Your task to perform on an android device: turn off data saver in the chrome app Image 0: 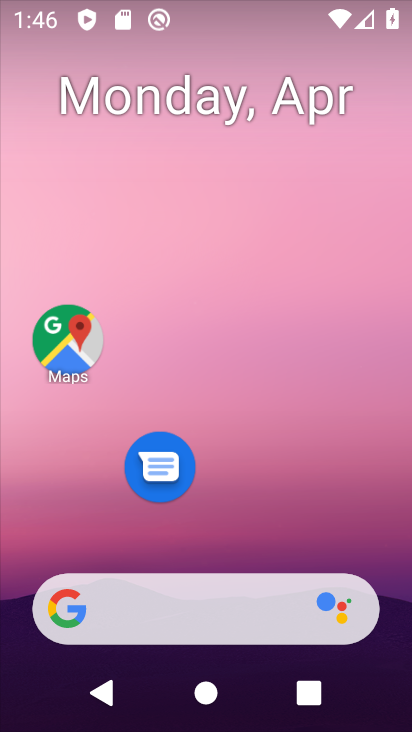
Step 0: drag from (261, 519) to (187, 86)
Your task to perform on an android device: turn off data saver in the chrome app Image 1: 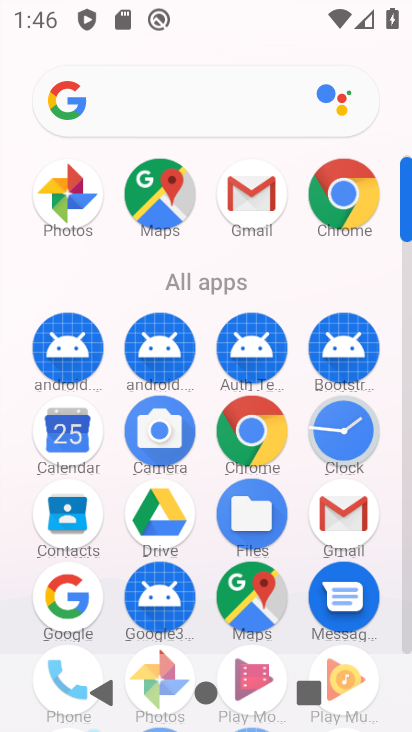
Step 1: click (331, 204)
Your task to perform on an android device: turn off data saver in the chrome app Image 2: 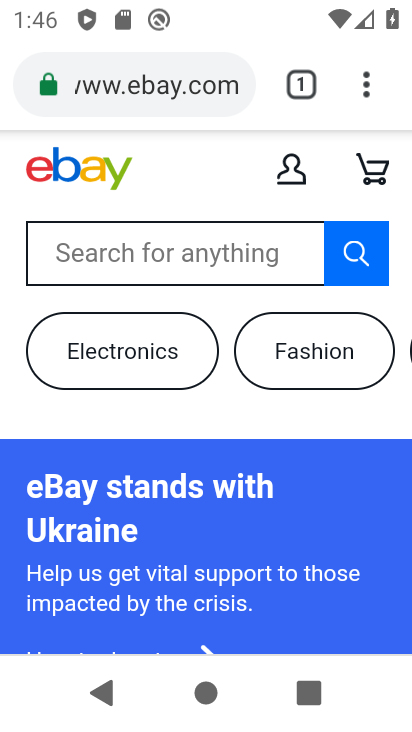
Step 2: click (368, 84)
Your task to perform on an android device: turn off data saver in the chrome app Image 3: 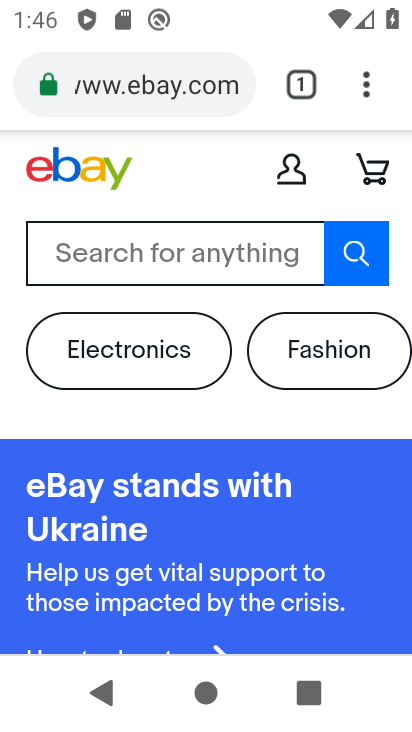
Step 3: click (368, 84)
Your task to perform on an android device: turn off data saver in the chrome app Image 4: 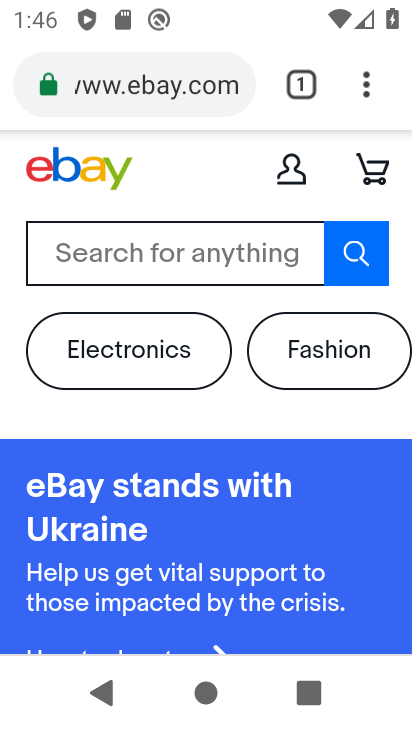
Step 4: click (358, 85)
Your task to perform on an android device: turn off data saver in the chrome app Image 5: 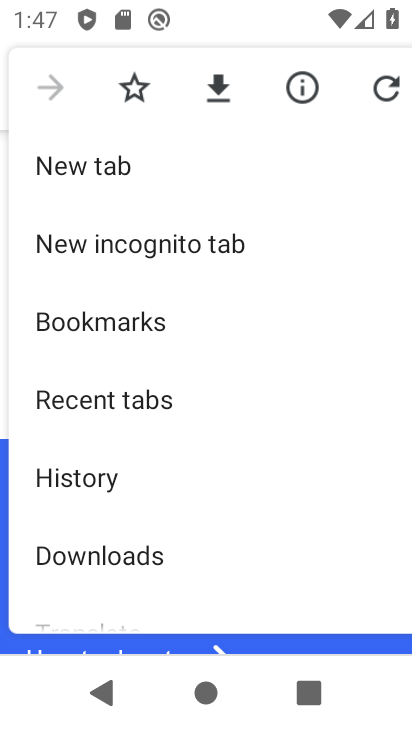
Step 5: drag from (168, 575) to (127, 438)
Your task to perform on an android device: turn off data saver in the chrome app Image 6: 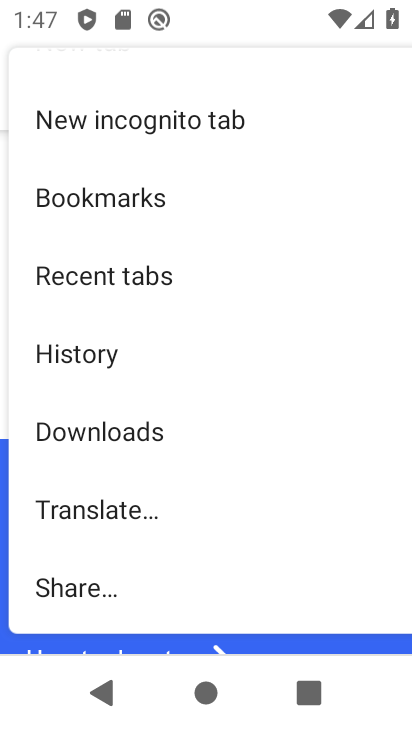
Step 6: drag from (142, 589) to (129, 396)
Your task to perform on an android device: turn off data saver in the chrome app Image 7: 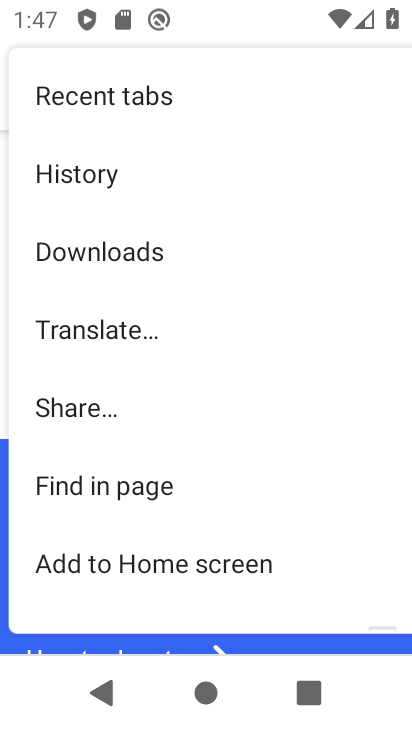
Step 7: drag from (176, 481) to (183, 244)
Your task to perform on an android device: turn off data saver in the chrome app Image 8: 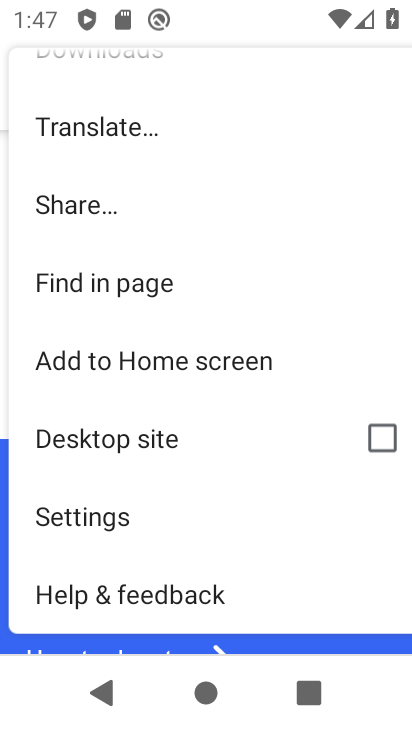
Step 8: click (156, 526)
Your task to perform on an android device: turn off data saver in the chrome app Image 9: 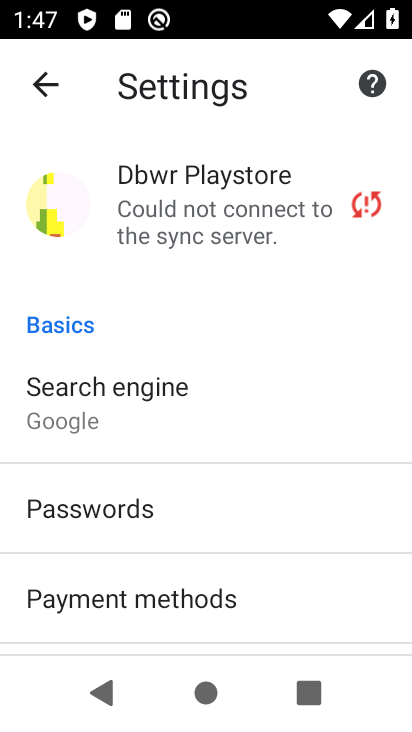
Step 9: drag from (160, 594) to (149, 398)
Your task to perform on an android device: turn off data saver in the chrome app Image 10: 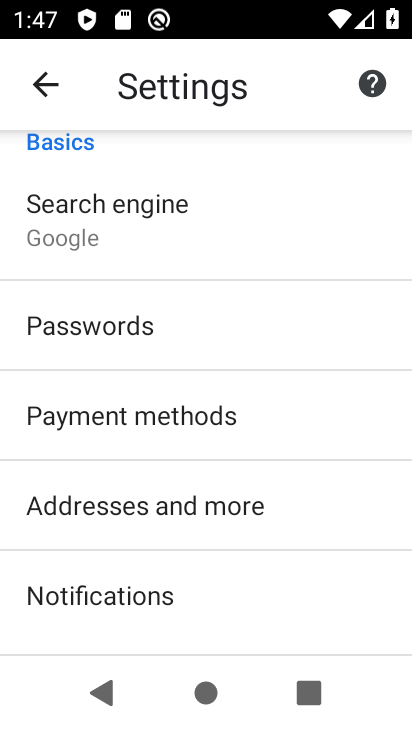
Step 10: drag from (188, 555) to (169, 374)
Your task to perform on an android device: turn off data saver in the chrome app Image 11: 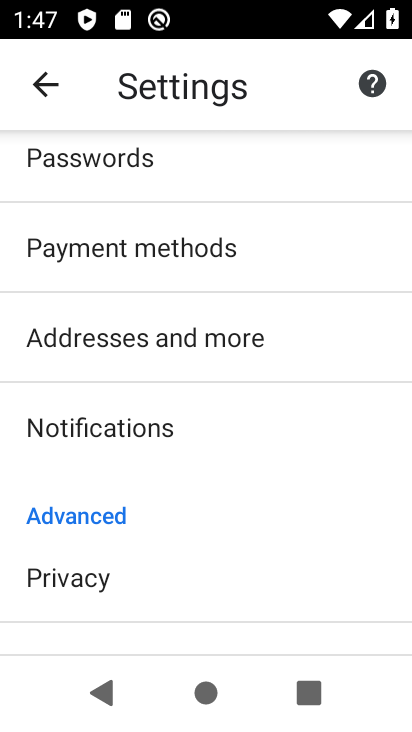
Step 11: drag from (206, 569) to (183, 416)
Your task to perform on an android device: turn off data saver in the chrome app Image 12: 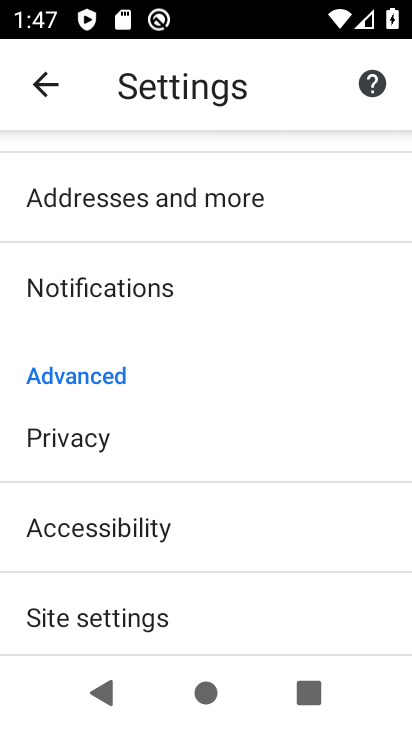
Step 12: drag from (214, 559) to (183, 374)
Your task to perform on an android device: turn off data saver in the chrome app Image 13: 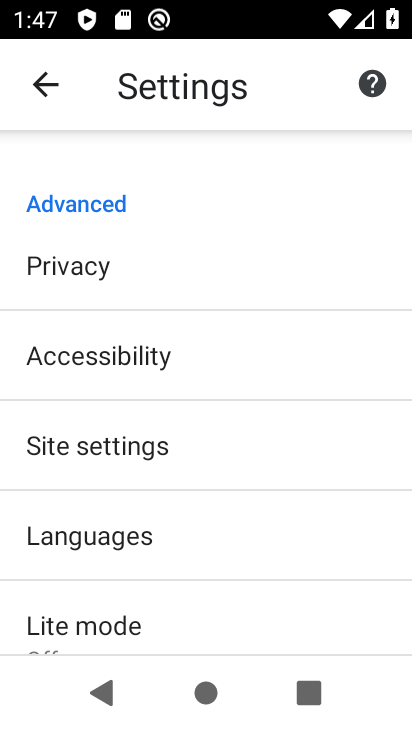
Step 13: drag from (198, 635) to (183, 396)
Your task to perform on an android device: turn off data saver in the chrome app Image 14: 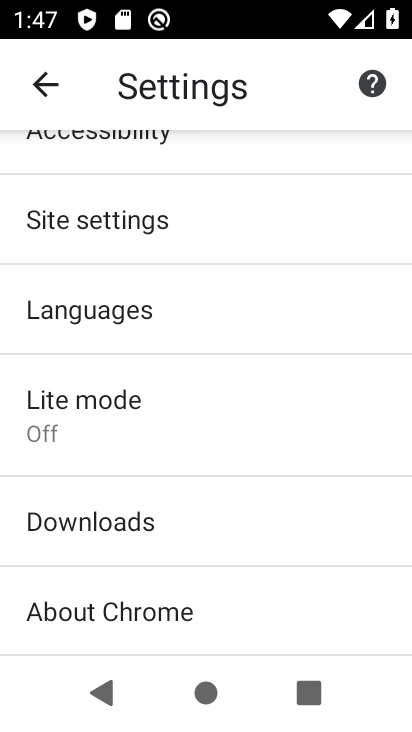
Step 14: click (139, 419)
Your task to perform on an android device: turn off data saver in the chrome app Image 15: 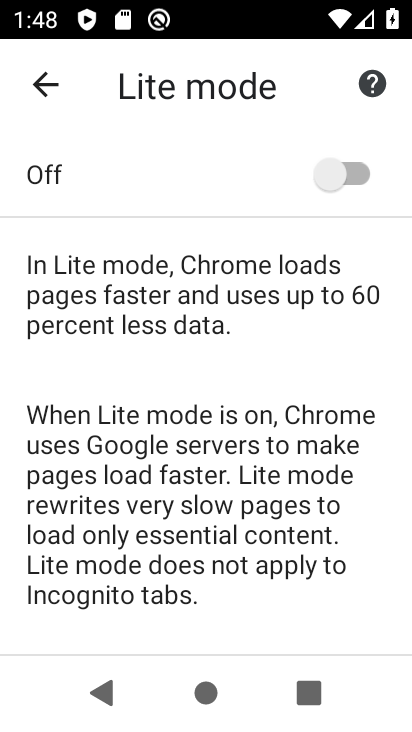
Step 15: task complete